Your task to perform on an android device: turn off wifi Image 0: 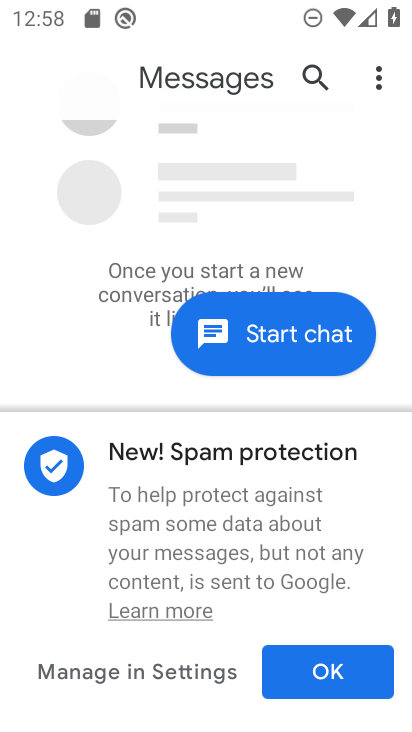
Step 0: press home button
Your task to perform on an android device: turn off wifi Image 1: 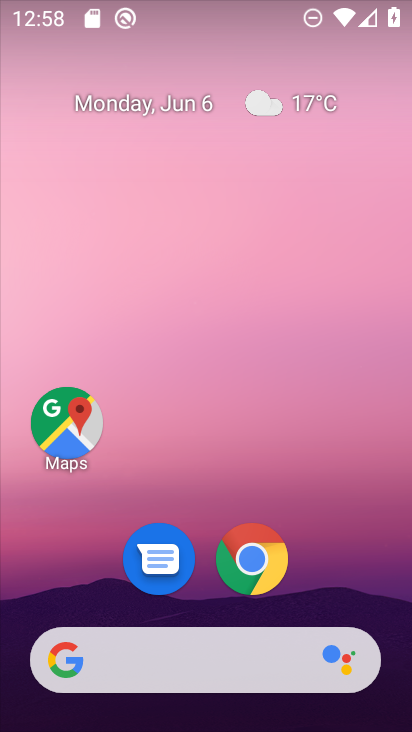
Step 1: drag from (188, 493) to (245, 103)
Your task to perform on an android device: turn off wifi Image 2: 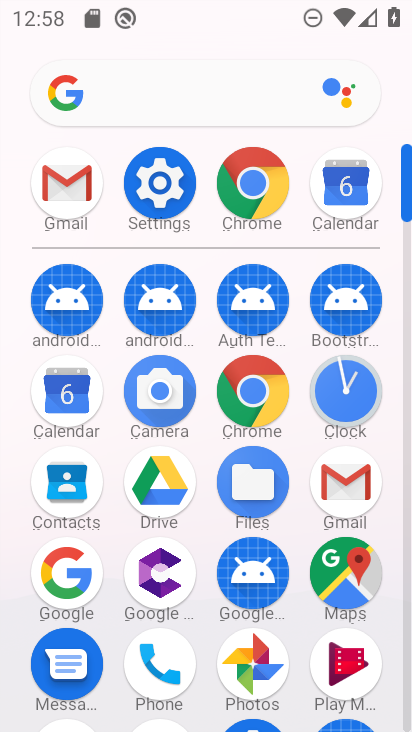
Step 2: click (151, 190)
Your task to perform on an android device: turn off wifi Image 3: 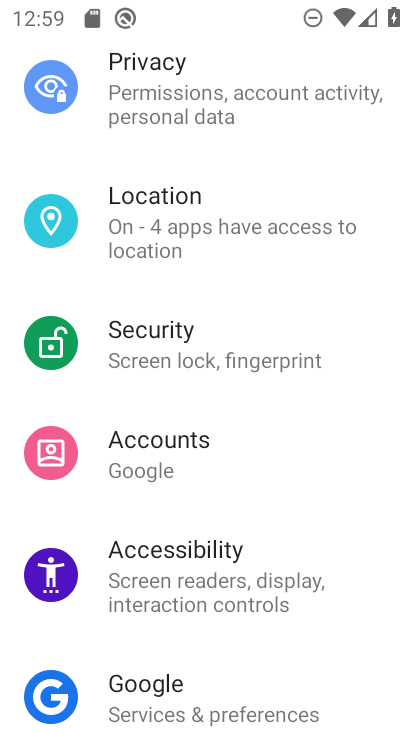
Step 3: drag from (205, 288) to (217, 639)
Your task to perform on an android device: turn off wifi Image 4: 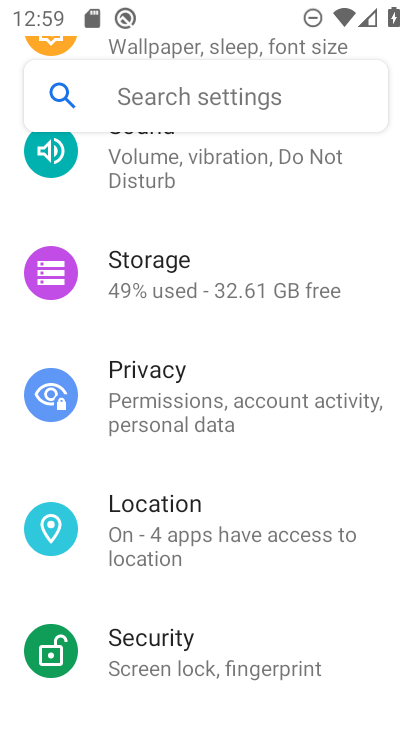
Step 4: drag from (223, 369) to (217, 697)
Your task to perform on an android device: turn off wifi Image 5: 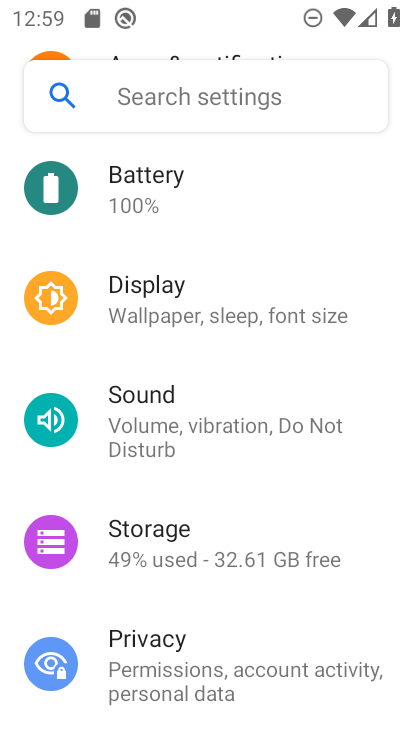
Step 5: drag from (199, 375) to (191, 728)
Your task to perform on an android device: turn off wifi Image 6: 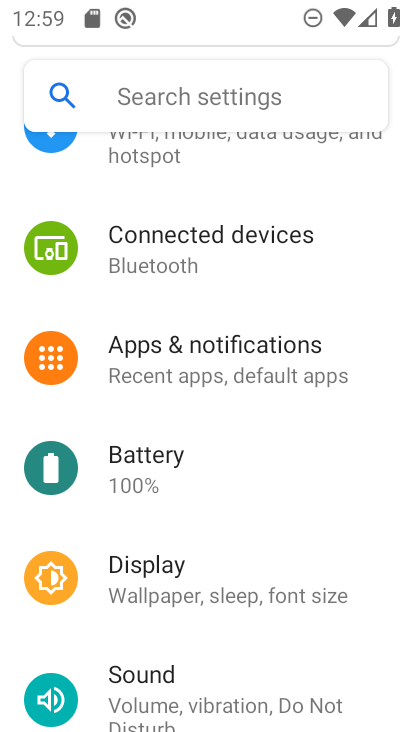
Step 6: drag from (207, 332) to (182, 729)
Your task to perform on an android device: turn off wifi Image 7: 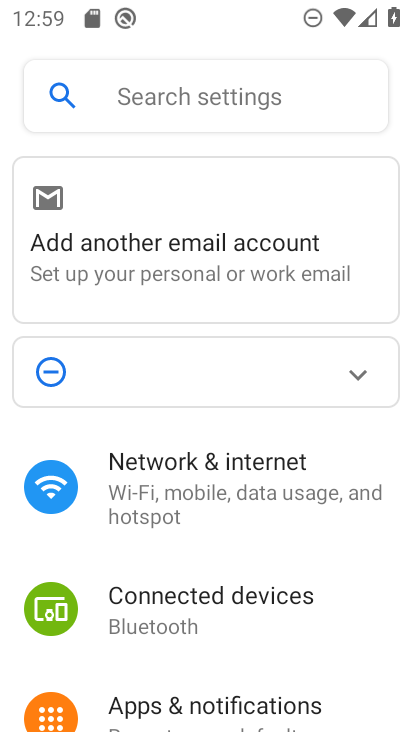
Step 7: click (222, 500)
Your task to perform on an android device: turn off wifi Image 8: 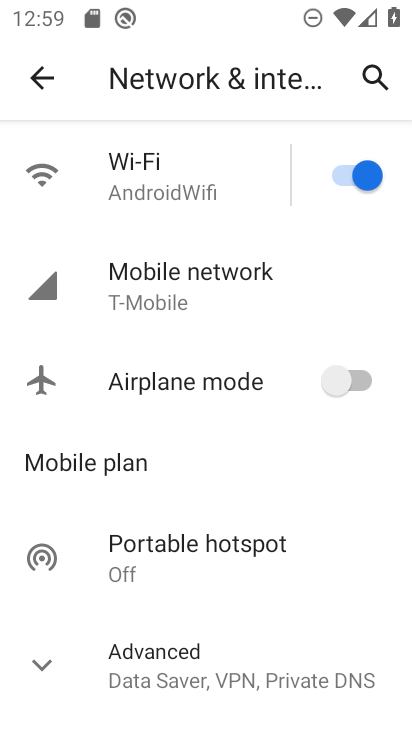
Step 8: click (340, 171)
Your task to perform on an android device: turn off wifi Image 9: 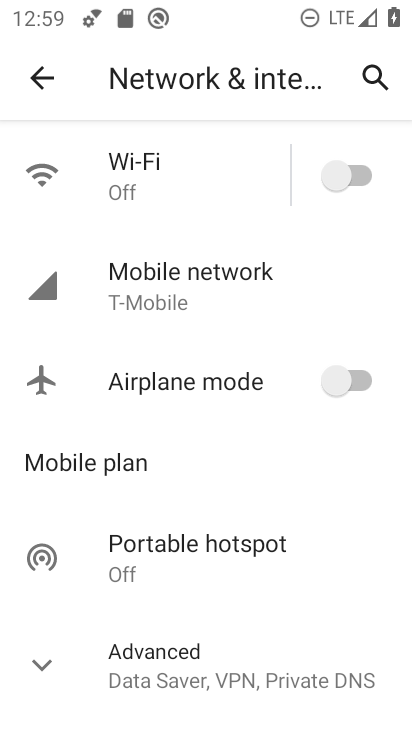
Step 9: task complete